Your task to perform on an android device: Open location settings Image 0: 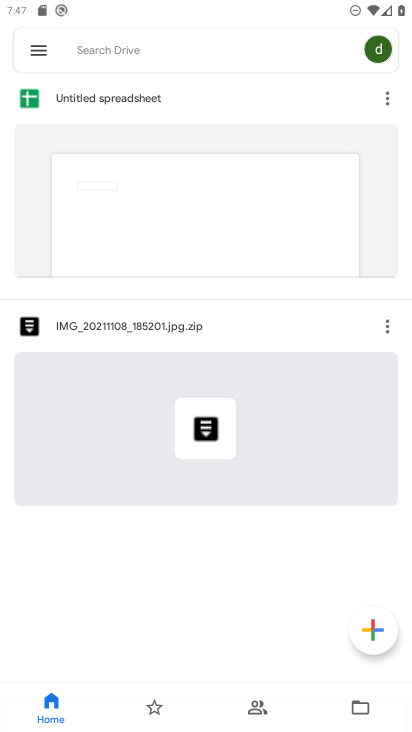
Step 0: press home button
Your task to perform on an android device: Open location settings Image 1: 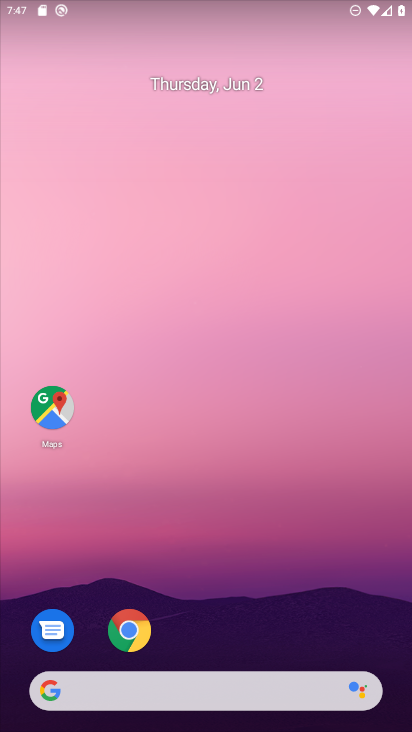
Step 1: drag from (134, 729) to (187, 65)
Your task to perform on an android device: Open location settings Image 2: 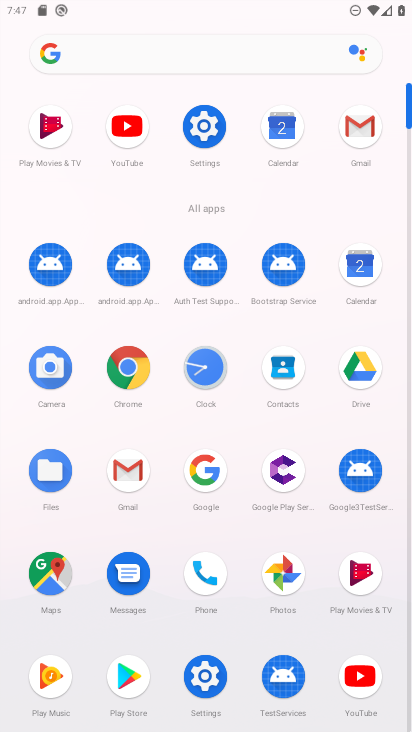
Step 2: click (216, 140)
Your task to perform on an android device: Open location settings Image 3: 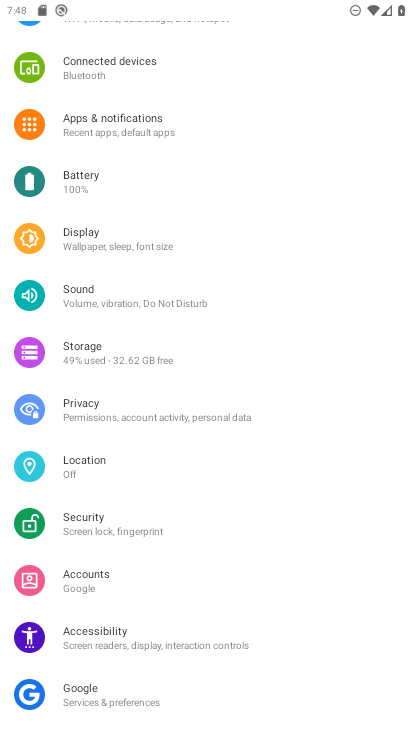
Step 3: click (91, 476)
Your task to perform on an android device: Open location settings Image 4: 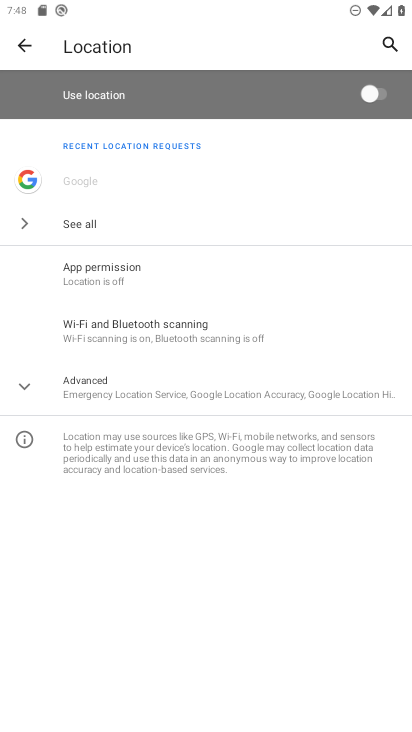
Step 4: task complete